Your task to perform on an android device: Show the shopping cart on ebay.com. Image 0: 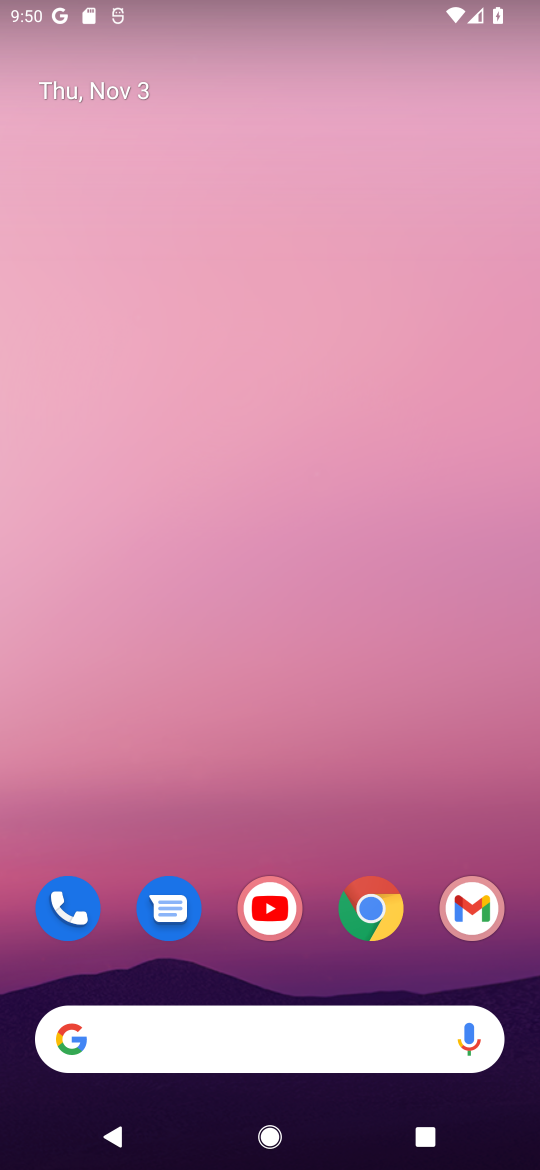
Step 0: click (381, 909)
Your task to perform on an android device: Show the shopping cart on ebay.com. Image 1: 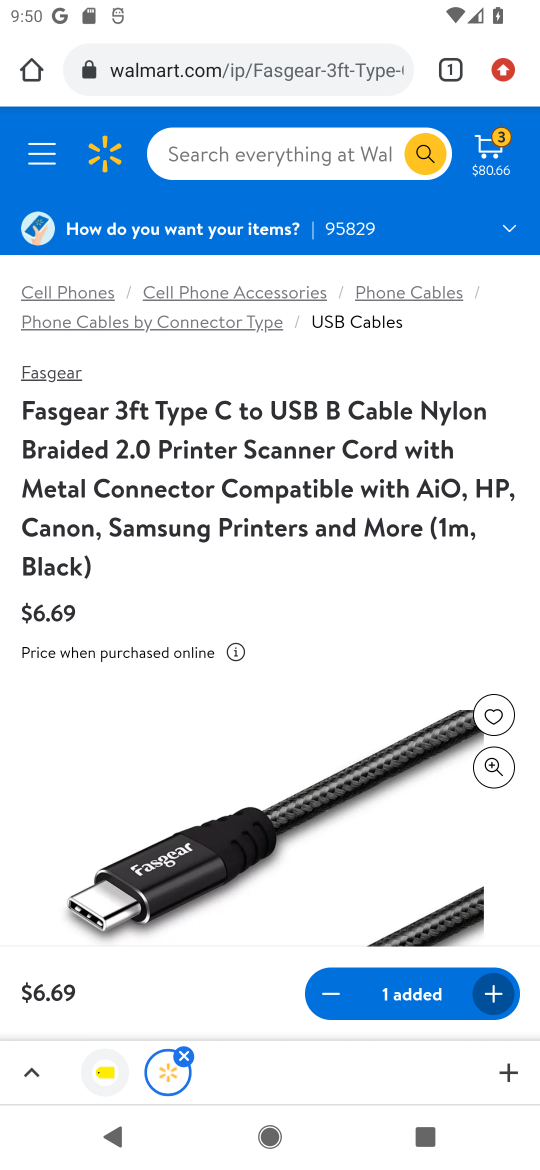
Step 1: click (218, 61)
Your task to perform on an android device: Show the shopping cart on ebay.com. Image 2: 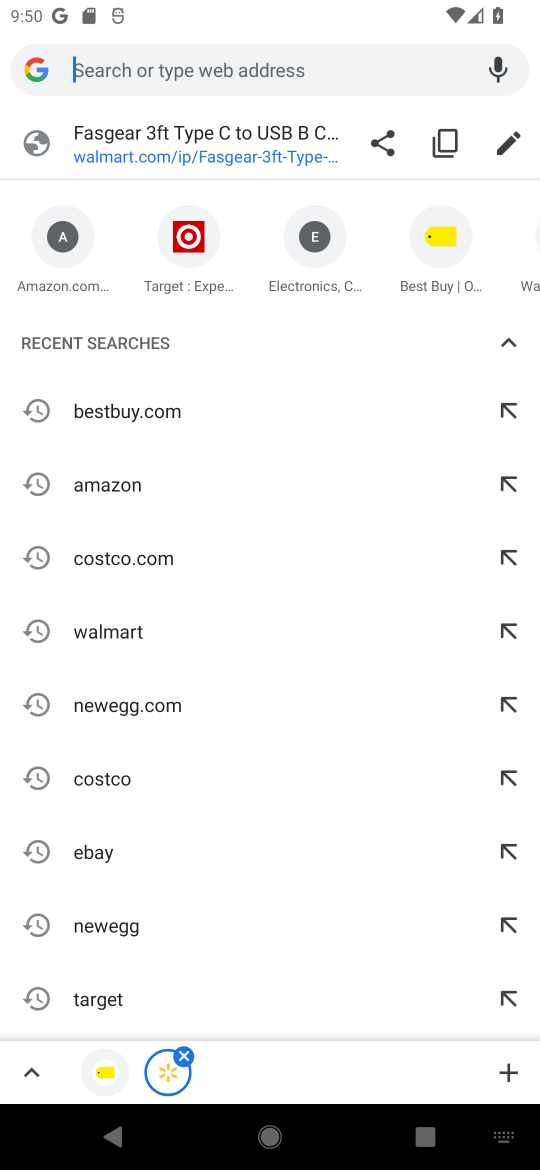
Step 2: type "ebay.com"
Your task to perform on an android device: Show the shopping cart on ebay.com. Image 3: 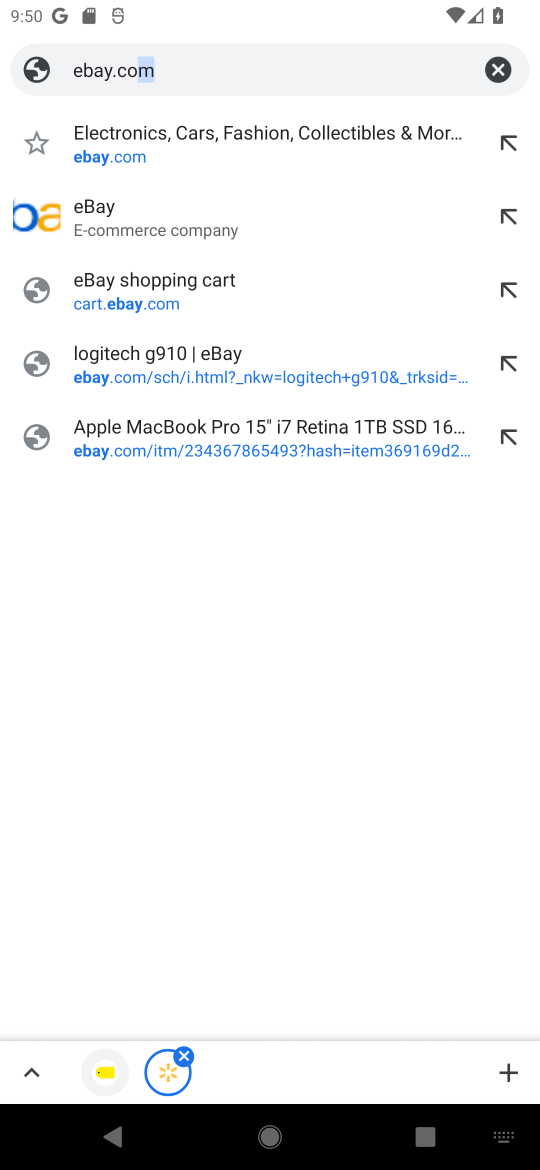
Step 3: press enter
Your task to perform on an android device: Show the shopping cart on ebay.com. Image 4: 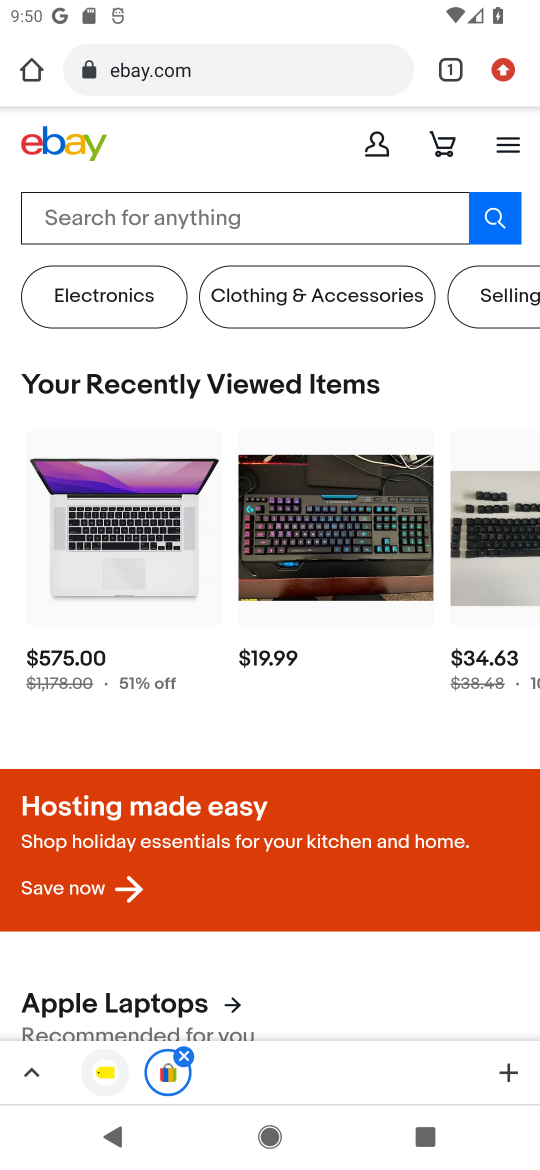
Step 4: click (437, 140)
Your task to perform on an android device: Show the shopping cart on ebay.com. Image 5: 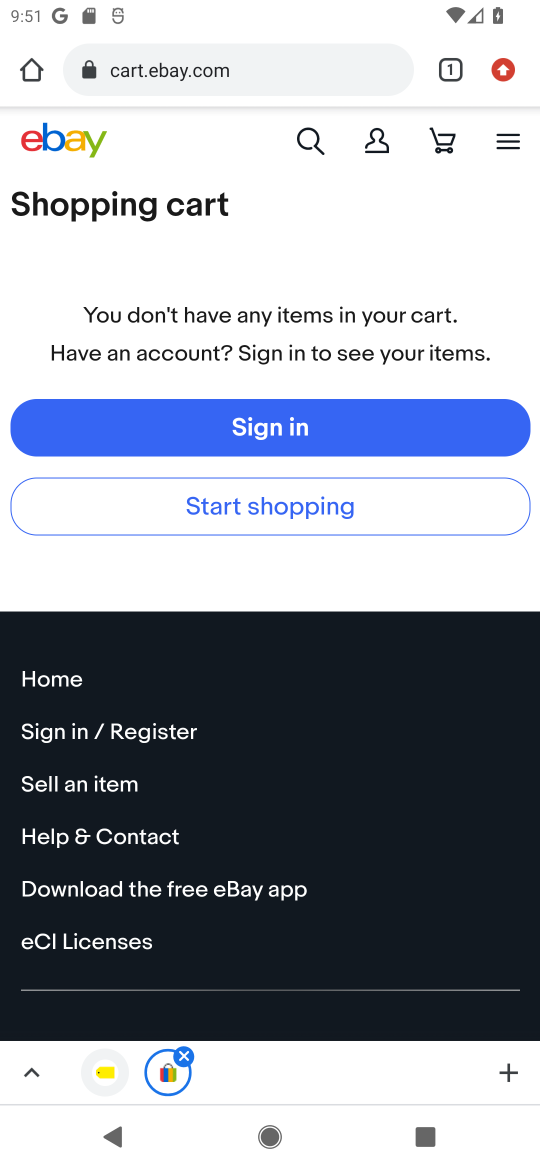
Step 5: task complete